Your task to perform on an android device: Go to Yahoo.com Image 0: 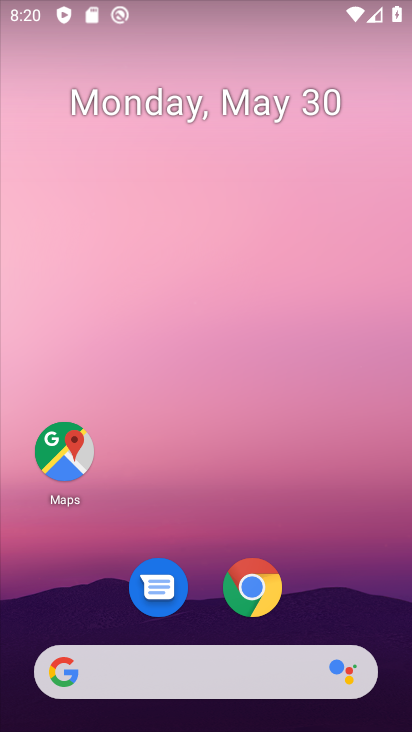
Step 0: click (226, 680)
Your task to perform on an android device: Go to Yahoo.com Image 1: 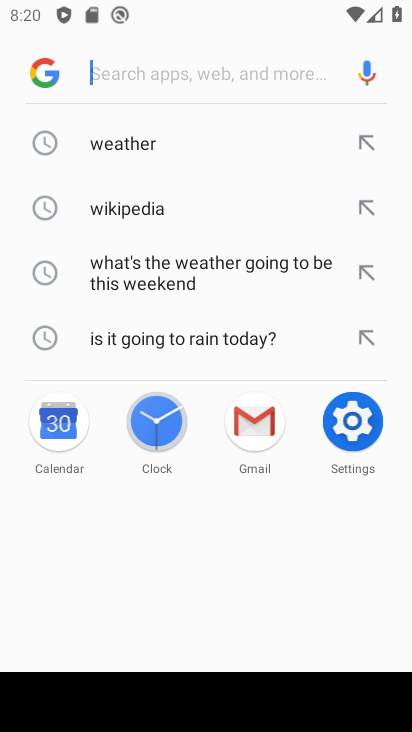
Step 1: type "Yahoo.com"
Your task to perform on an android device: Go to Yahoo.com Image 2: 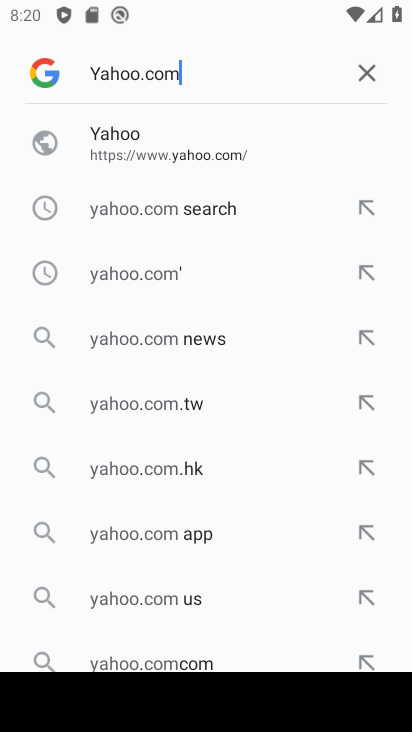
Step 2: click (189, 131)
Your task to perform on an android device: Go to Yahoo.com Image 3: 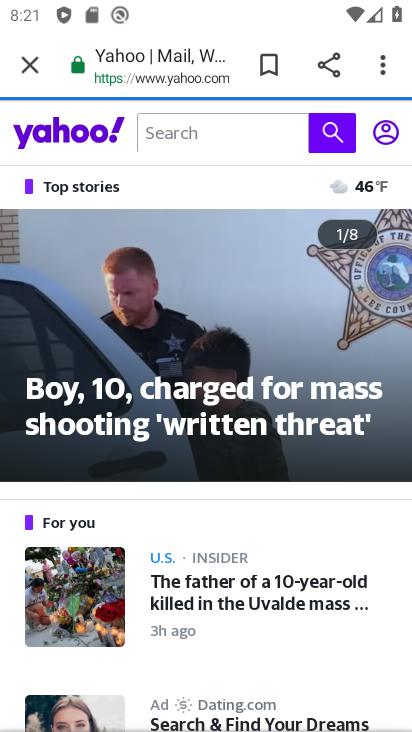
Step 3: task complete